Your task to perform on an android device: turn off location Image 0: 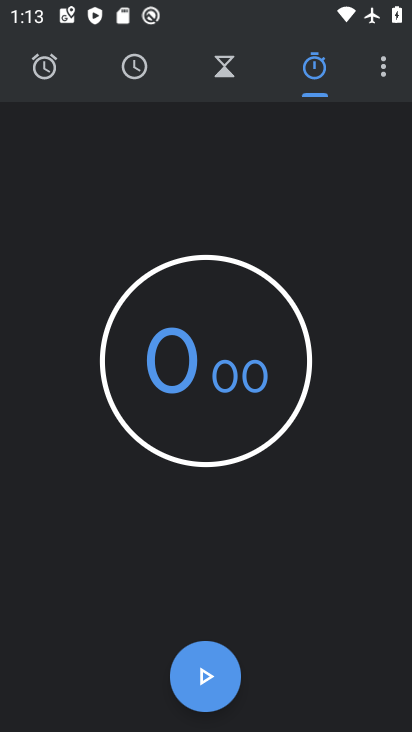
Step 0: press home button
Your task to perform on an android device: turn off location Image 1: 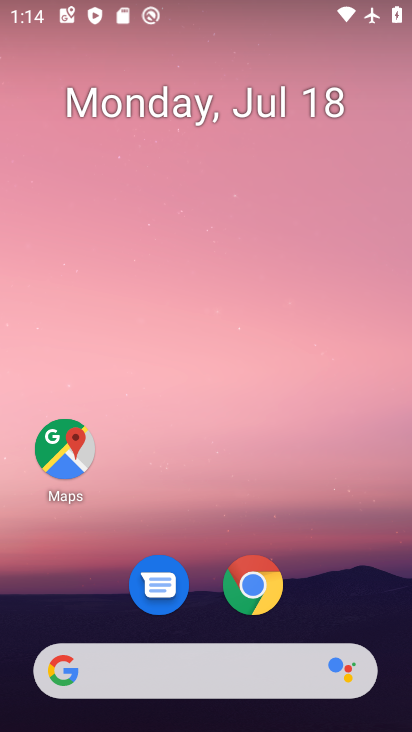
Step 1: press home button
Your task to perform on an android device: turn off location Image 2: 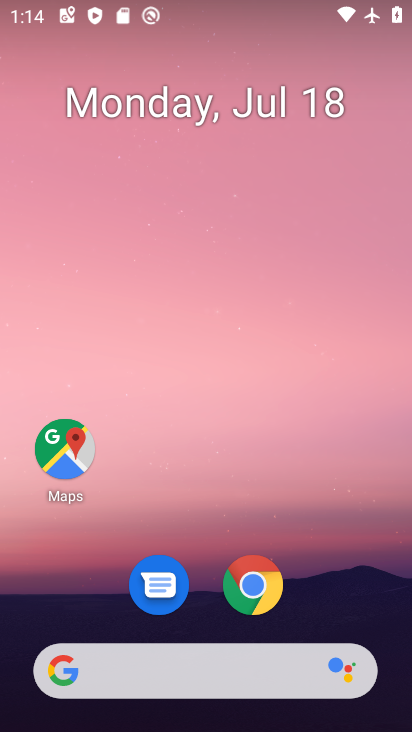
Step 2: drag from (201, 684) to (337, 24)
Your task to perform on an android device: turn off location Image 3: 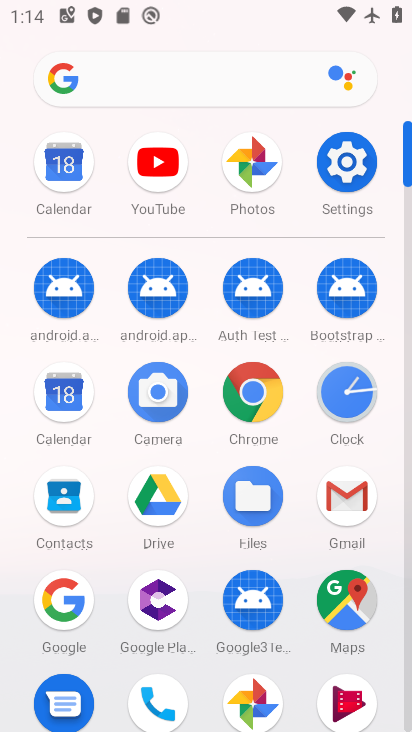
Step 3: click (345, 154)
Your task to perform on an android device: turn off location Image 4: 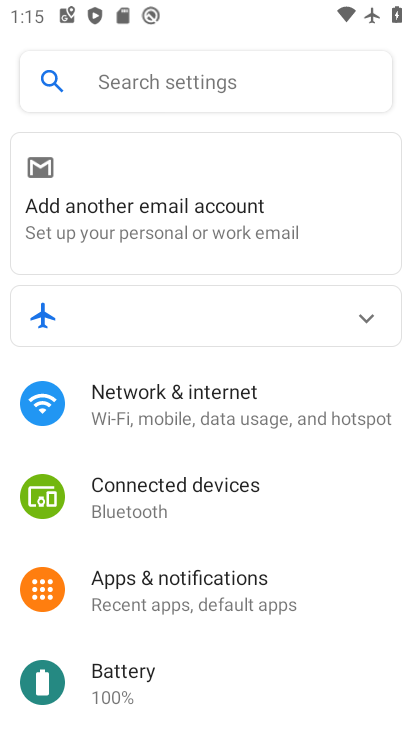
Step 4: drag from (210, 536) to (299, 222)
Your task to perform on an android device: turn off location Image 5: 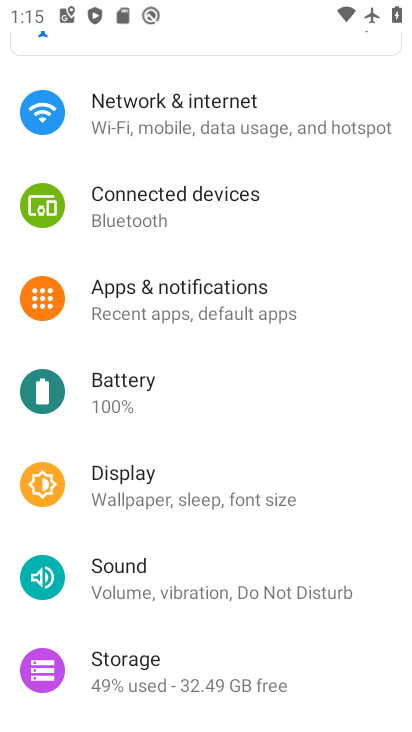
Step 5: drag from (197, 562) to (319, 189)
Your task to perform on an android device: turn off location Image 6: 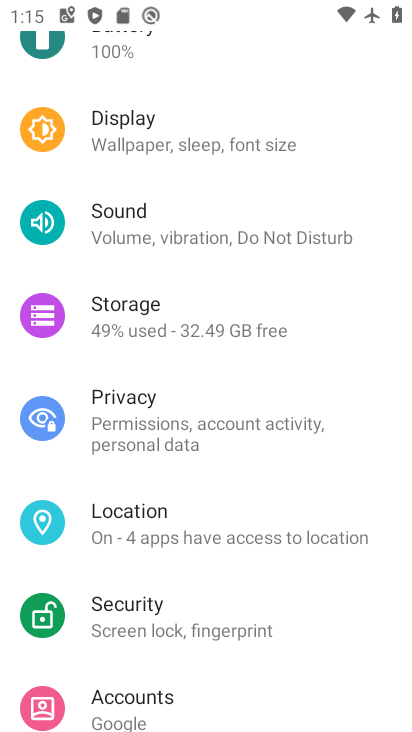
Step 6: click (160, 537)
Your task to perform on an android device: turn off location Image 7: 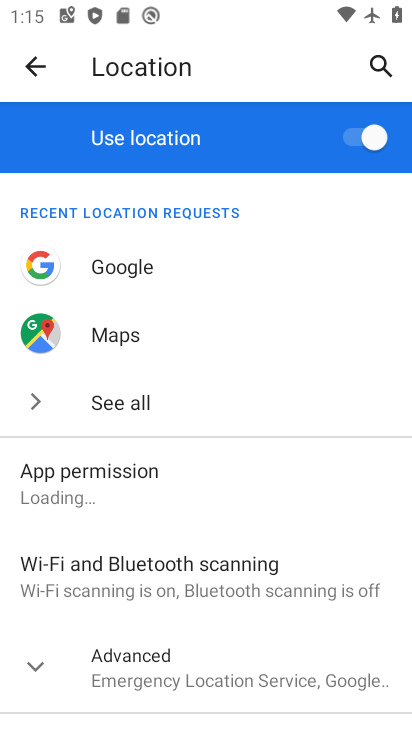
Step 7: click (352, 143)
Your task to perform on an android device: turn off location Image 8: 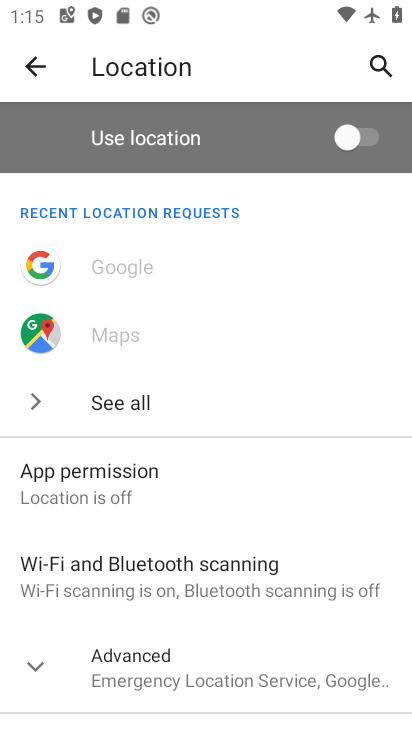
Step 8: task complete